Your task to perform on an android device: Go to Yahoo.com Image 0: 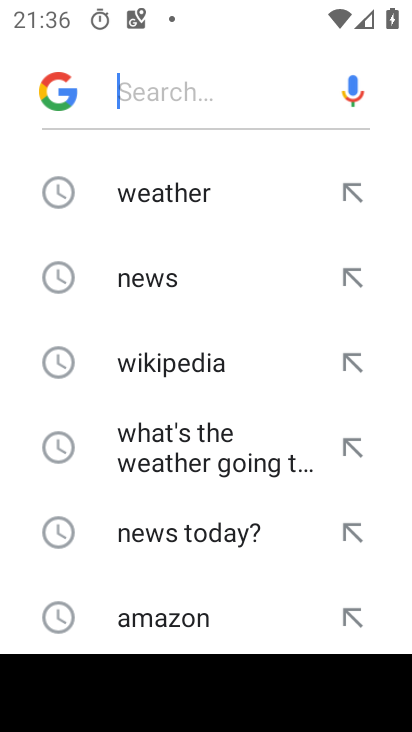
Step 0: press home button
Your task to perform on an android device: Go to Yahoo.com Image 1: 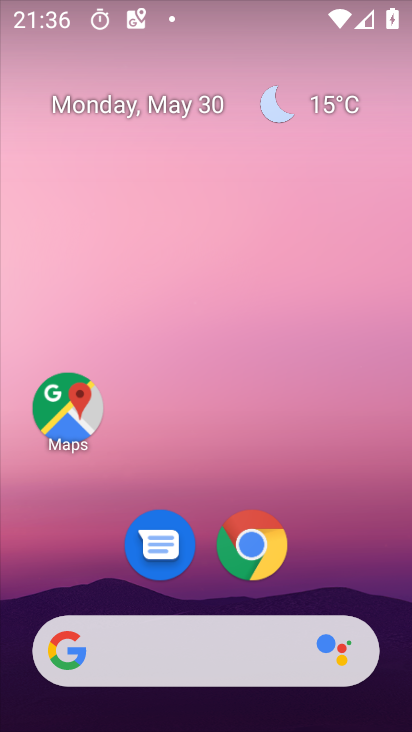
Step 1: click (257, 543)
Your task to perform on an android device: Go to Yahoo.com Image 2: 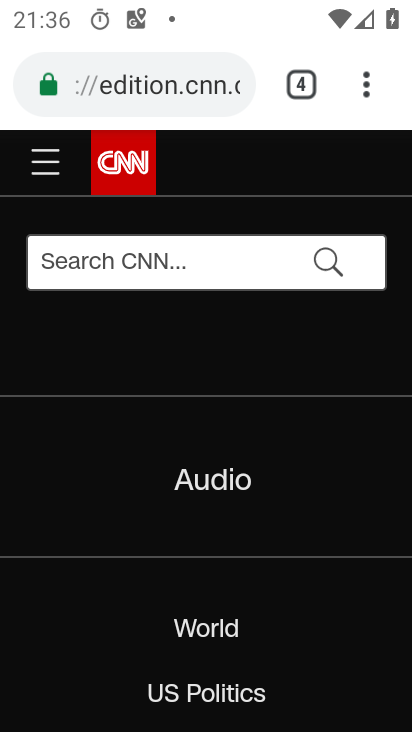
Step 2: click (307, 89)
Your task to perform on an android device: Go to Yahoo.com Image 3: 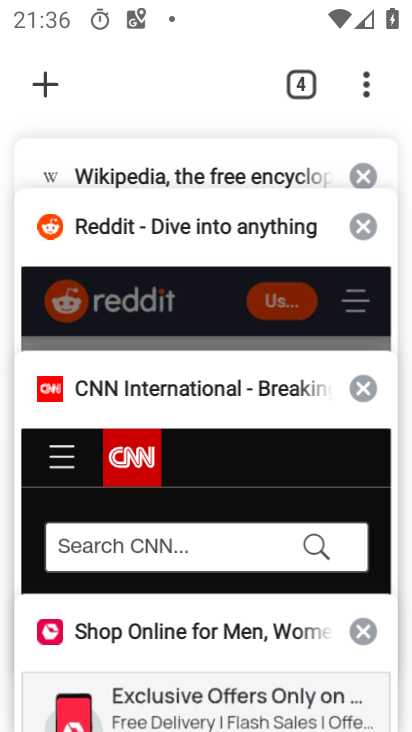
Step 3: click (38, 90)
Your task to perform on an android device: Go to Yahoo.com Image 4: 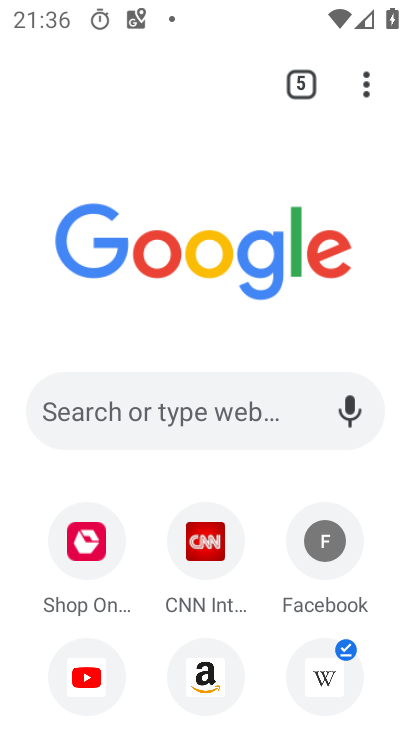
Step 4: click (230, 418)
Your task to perform on an android device: Go to Yahoo.com Image 5: 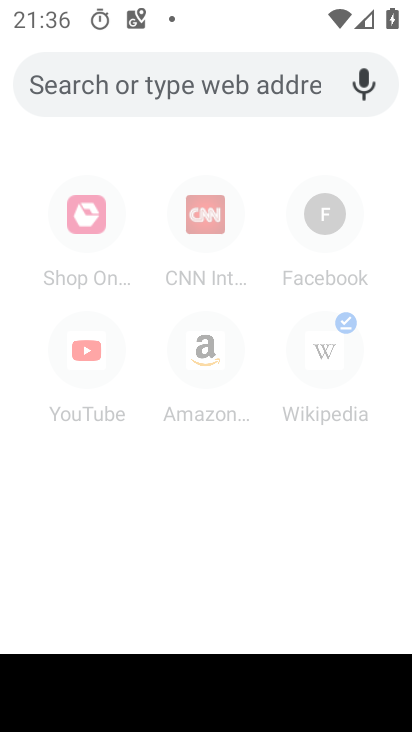
Step 5: type "yahoo.com"
Your task to perform on an android device: Go to Yahoo.com Image 6: 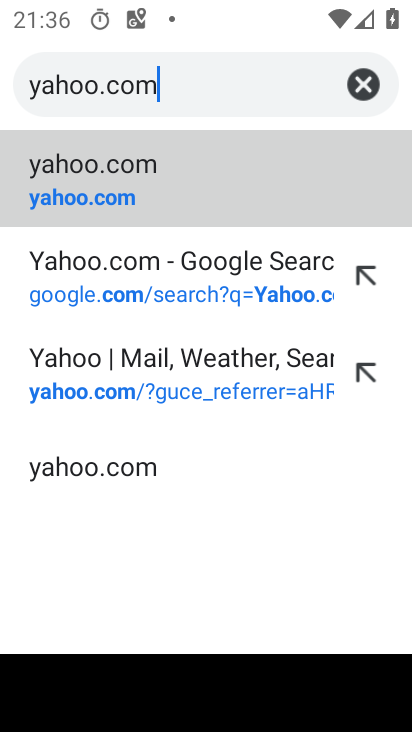
Step 6: click (111, 189)
Your task to perform on an android device: Go to Yahoo.com Image 7: 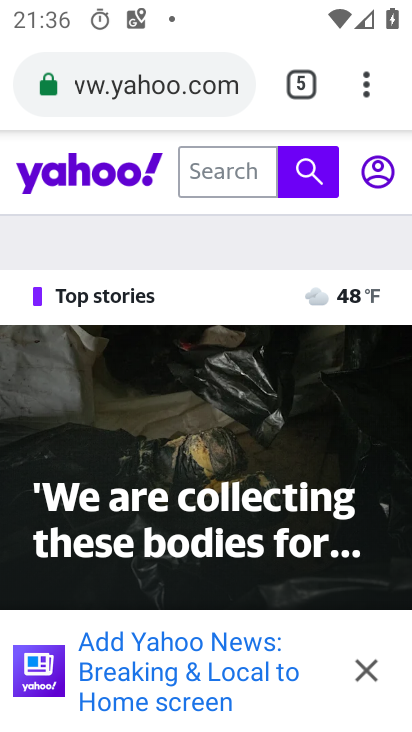
Step 7: task complete